Your task to perform on an android device: Open location settings Image 0: 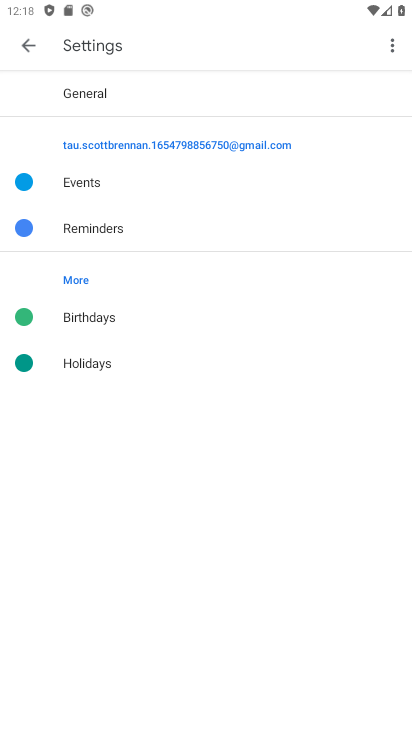
Step 0: press home button
Your task to perform on an android device: Open location settings Image 1: 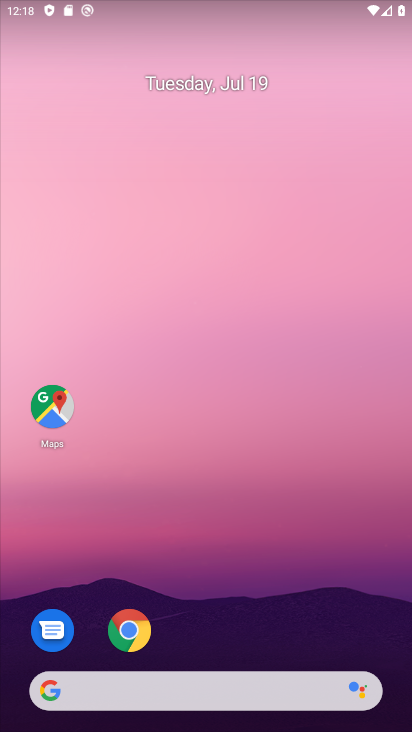
Step 1: drag from (184, 696) to (255, 106)
Your task to perform on an android device: Open location settings Image 2: 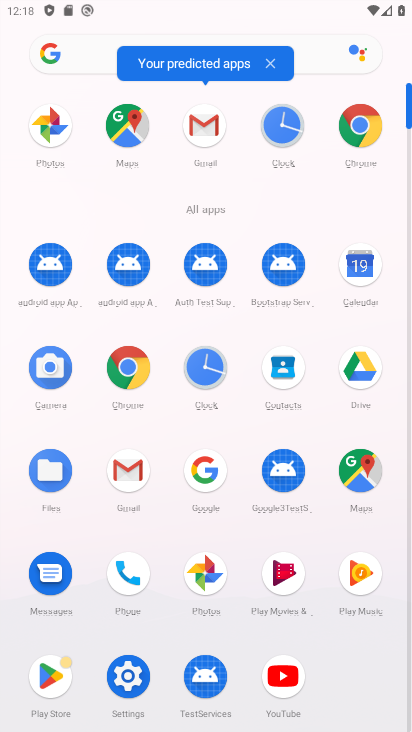
Step 2: click (132, 672)
Your task to perform on an android device: Open location settings Image 3: 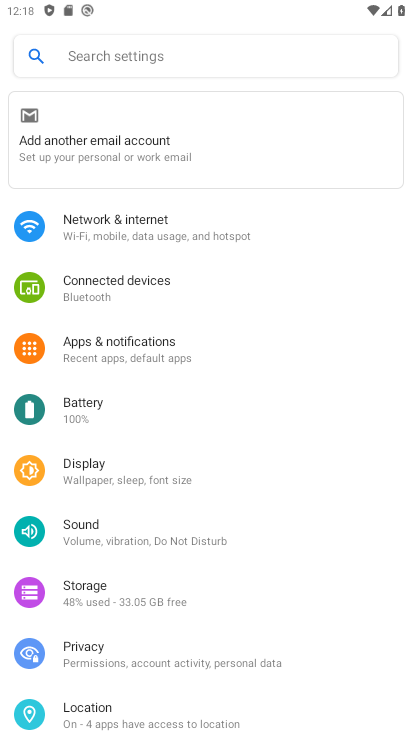
Step 3: drag from (246, 597) to (241, 161)
Your task to perform on an android device: Open location settings Image 4: 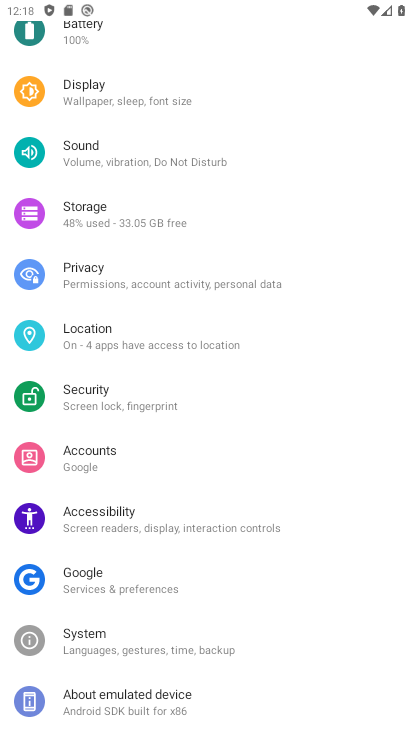
Step 4: click (112, 337)
Your task to perform on an android device: Open location settings Image 5: 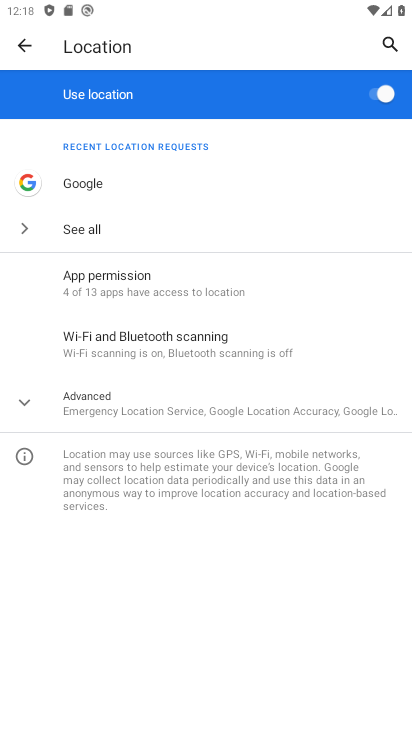
Step 5: task complete